Your task to perform on an android device: check storage Image 0: 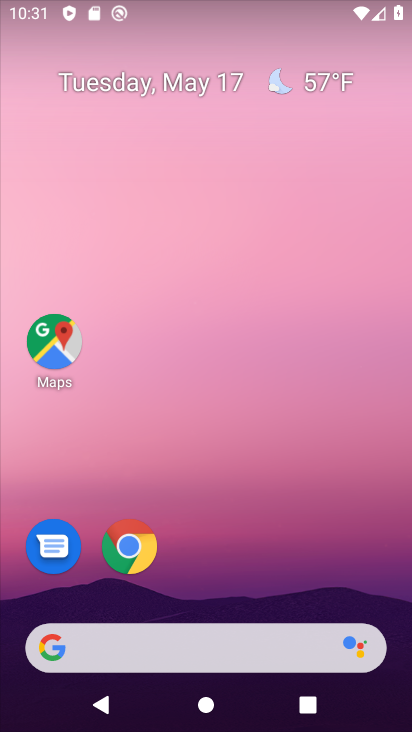
Step 0: drag from (242, 482) to (250, 28)
Your task to perform on an android device: check storage Image 1: 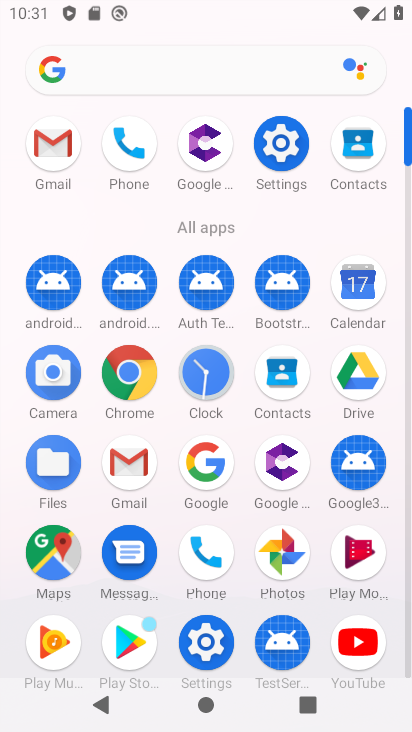
Step 1: click (287, 140)
Your task to perform on an android device: check storage Image 2: 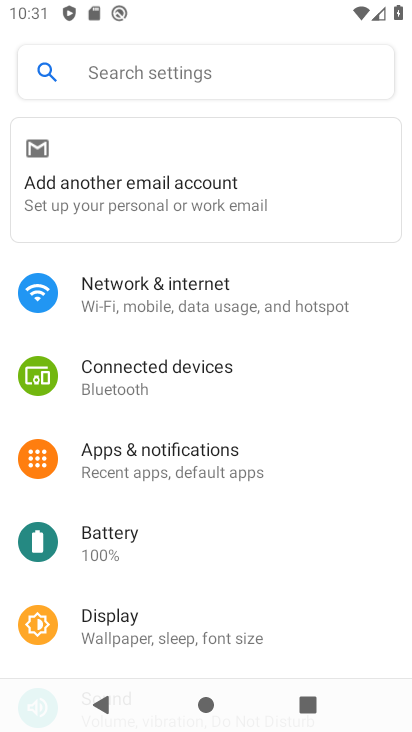
Step 2: drag from (167, 583) to (202, 284)
Your task to perform on an android device: check storage Image 3: 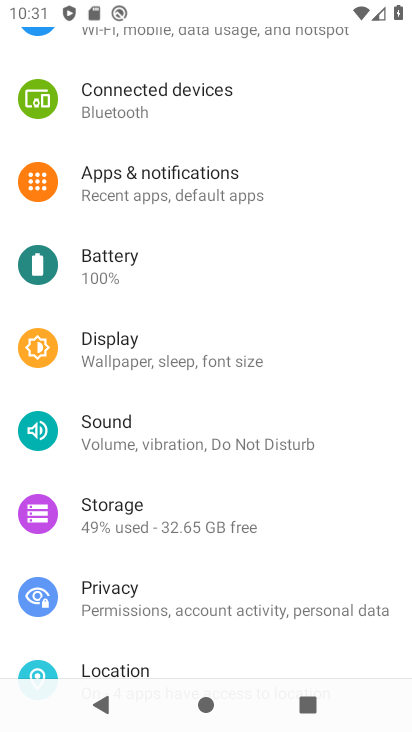
Step 3: click (186, 527)
Your task to perform on an android device: check storage Image 4: 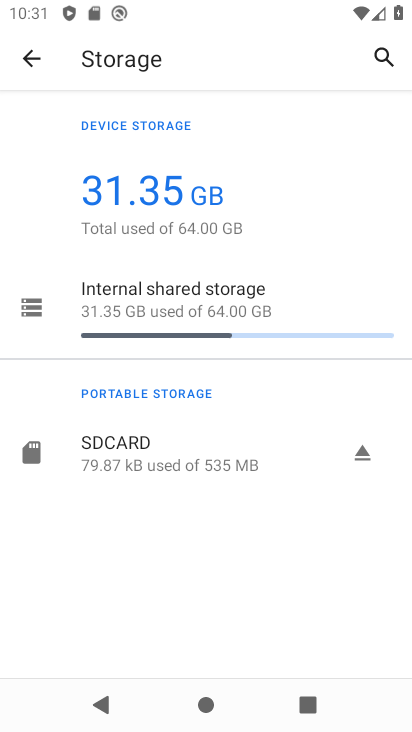
Step 4: task complete